Your task to perform on an android device: turn off improve location accuracy Image 0: 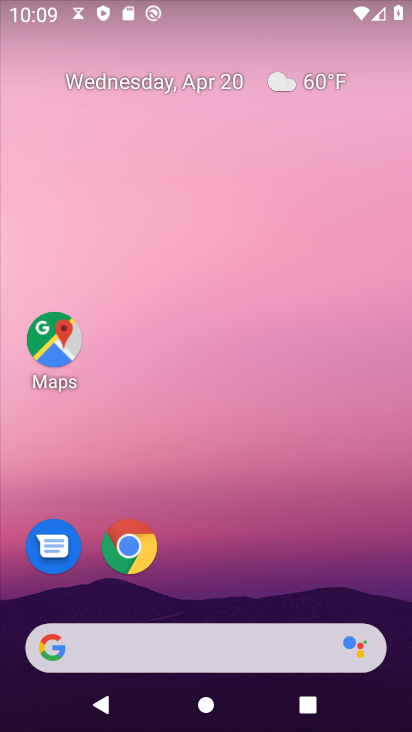
Step 0: drag from (232, 529) to (182, 50)
Your task to perform on an android device: turn off improve location accuracy Image 1: 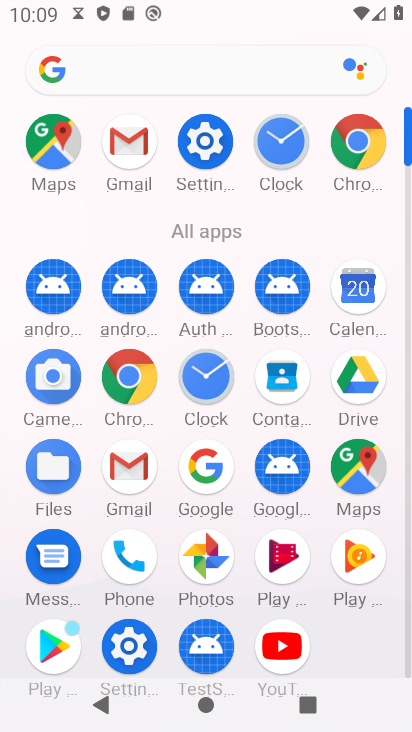
Step 1: click (208, 143)
Your task to perform on an android device: turn off improve location accuracy Image 2: 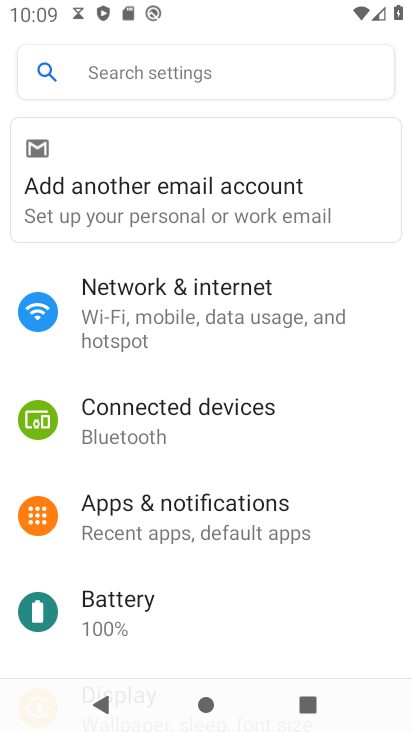
Step 2: drag from (233, 600) to (197, 103)
Your task to perform on an android device: turn off improve location accuracy Image 3: 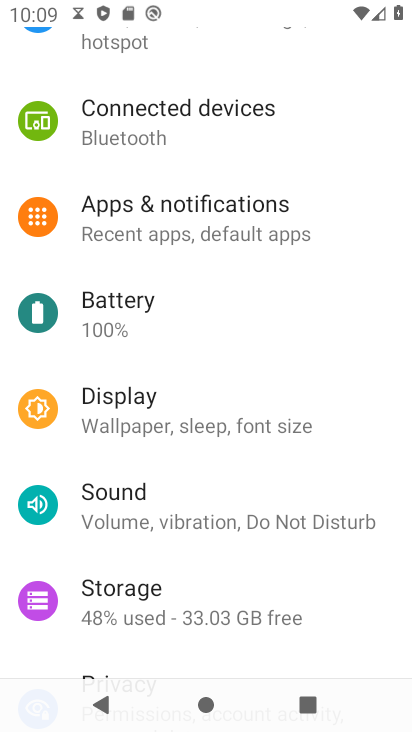
Step 3: drag from (219, 594) to (217, 173)
Your task to perform on an android device: turn off improve location accuracy Image 4: 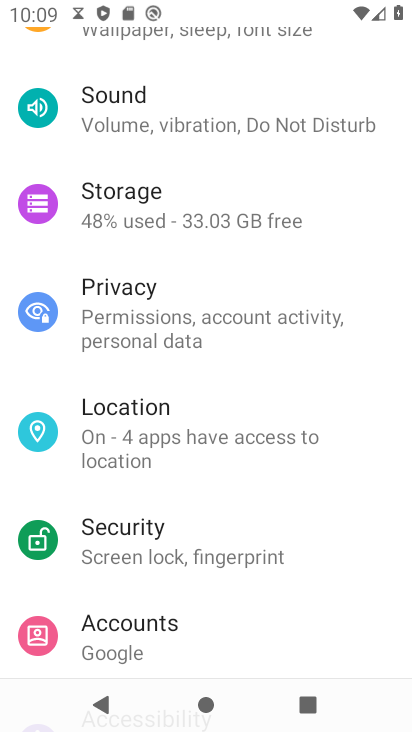
Step 4: click (161, 443)
Your task to perform on an android device: turn off improve location accuracy Image 5: 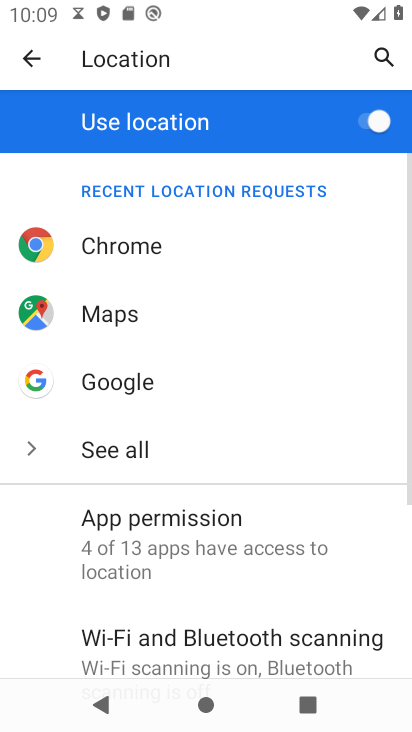
Step 5: drag from (238, 581) to (241, 154)
Your task to perform on an android device: turn off improve location accuracy Image 6: 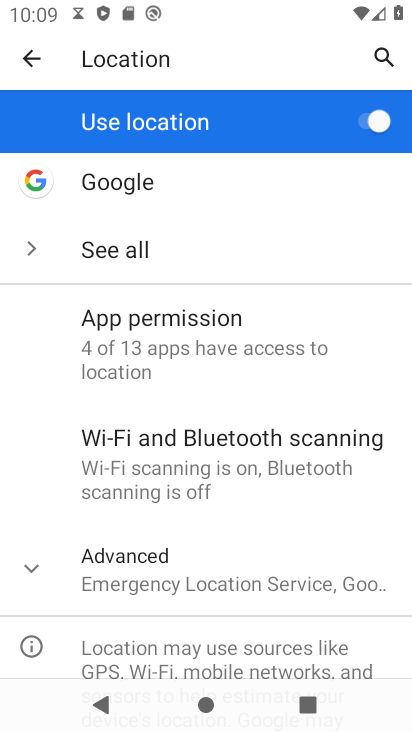
Step 6: click (230, 575)
Your task to perform on an android device: turn off improve location accuracy Image 7: 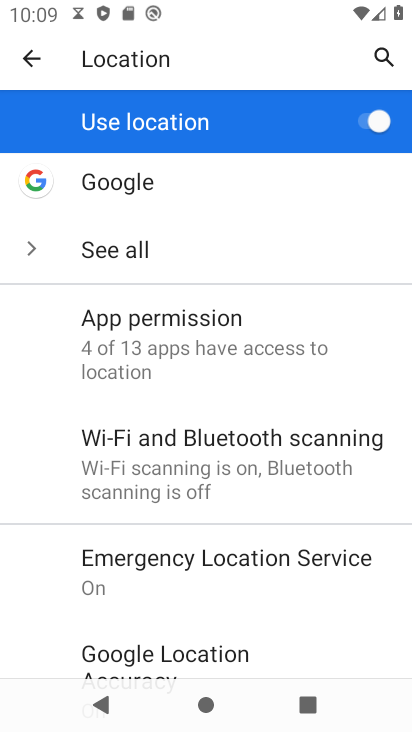
Step 7: drag from (226, 447) to (211, 184)
Your task to perform on an android device: turn off improve location accuracy Image 8: 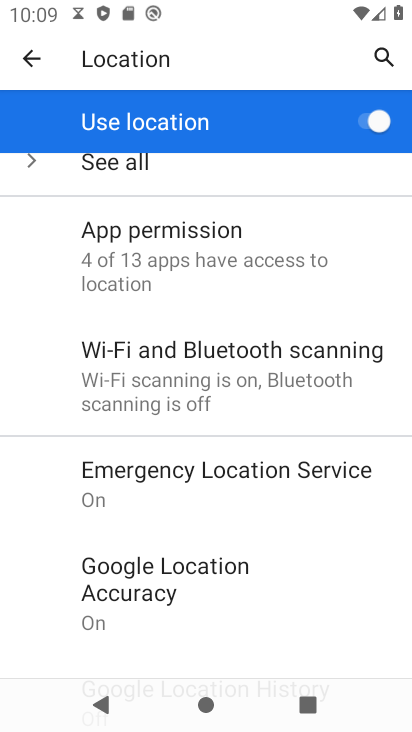
Step 8: drag from (210, 554) to (244, 234)
Your task to perform on an android device: turn off improve location accuracy Image 9: 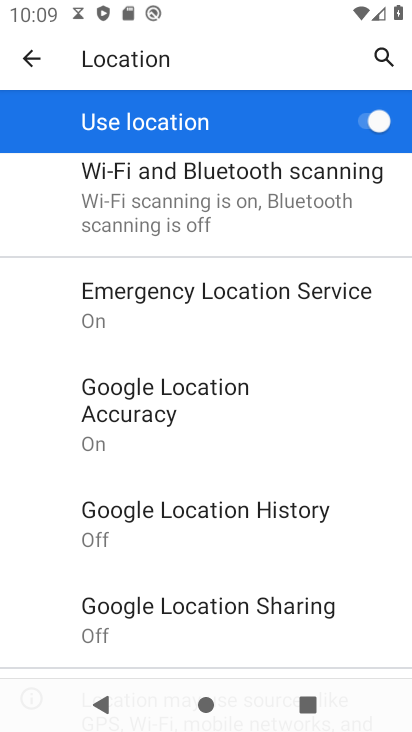
Step 9: click (197, 416)
Your task to perform on an android device: turn off improve location accuracy Image 10: 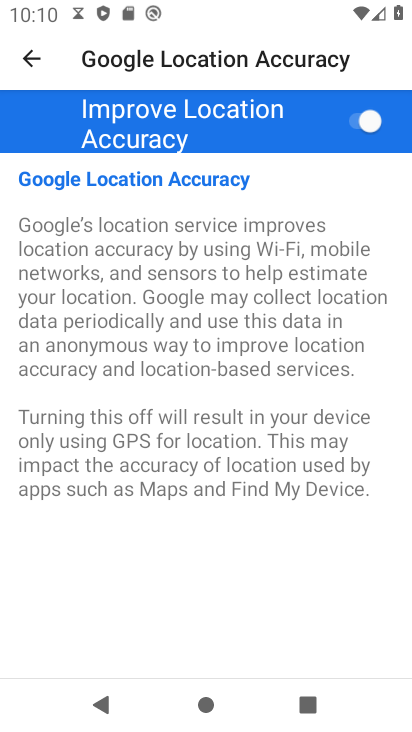
Step 10: click (361, 115)
Your task to perform on an android device: turn off improve location accuracy Image 11: 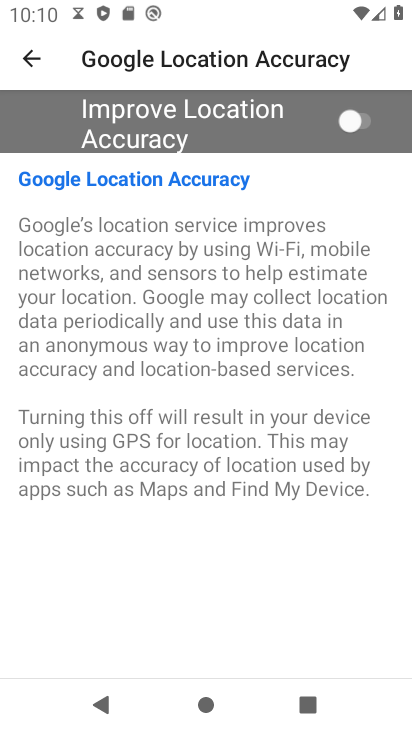
Step 11: task complete